Your task to perform on an android device: change notifications settings Image 0: 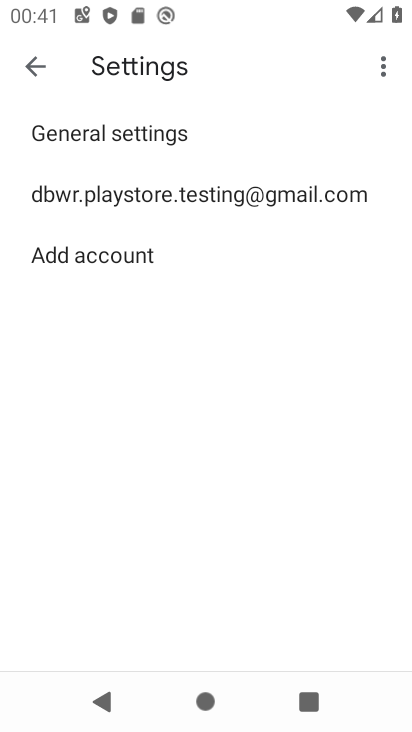
Step 0: click (263, 194)
Your task to perform on an android device: change notifications settings Image 1: 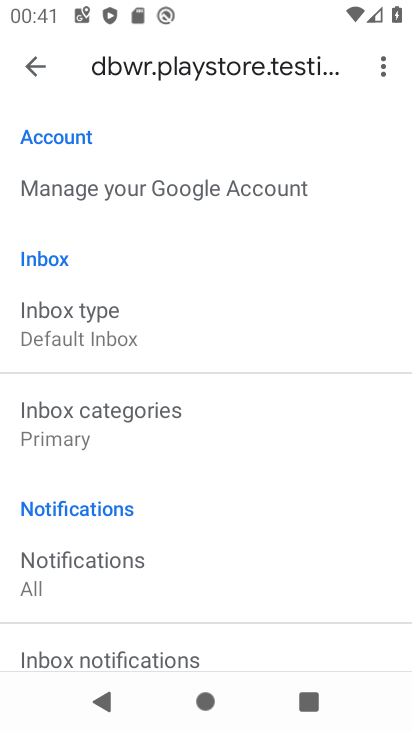
Step 1: drag from (269, 569) to (274, 146)
Your task to perform on an android device: change notifications settings Image 2: 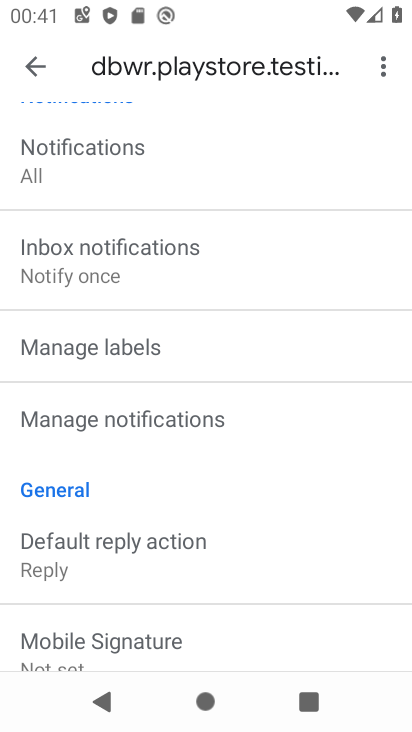
Step 2: click (188, 410)
Your task to perform on an android device: change notifications settings Image 3: 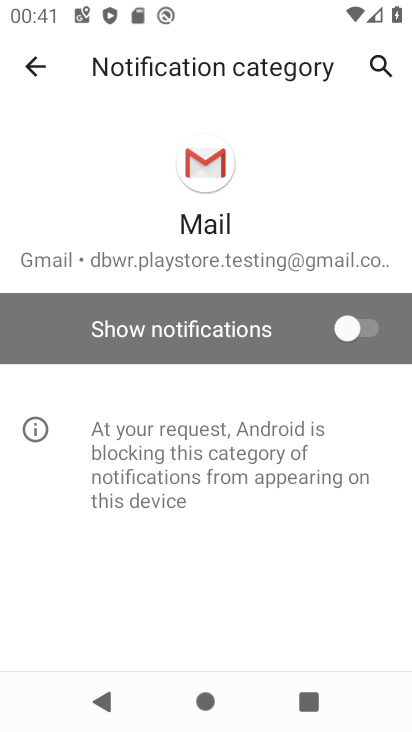
Step 3: click (356, 316)
Your task to perform on an android device: change notifications settings Image 4: 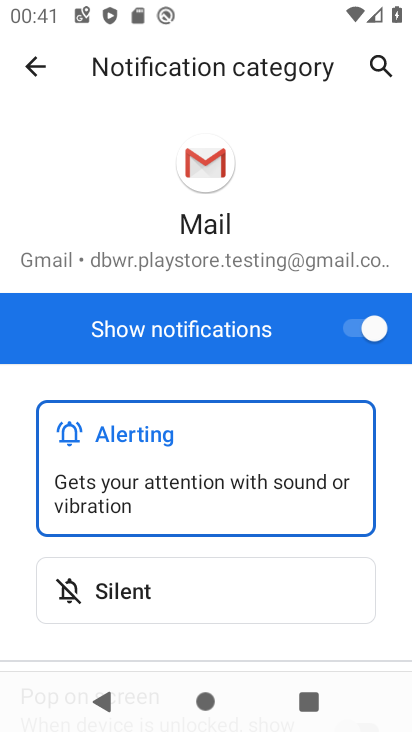
Step 4: task complete